Your task to perform on an android device: Do I have any events this weekend? Image 0: 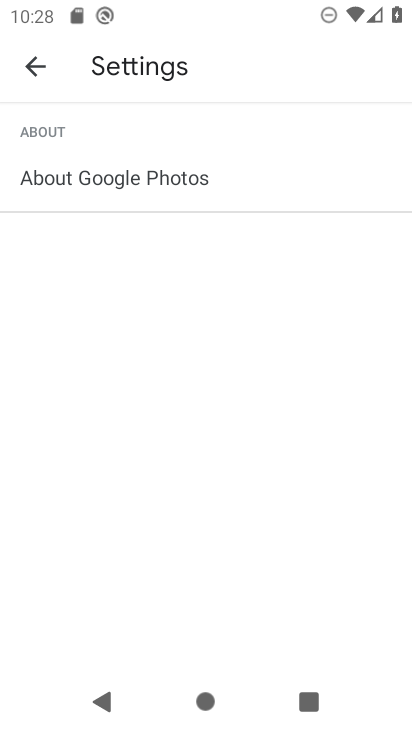
Step 0: press home button
Your task to perform on an android device: Do I have any events this weekend? Image 1: 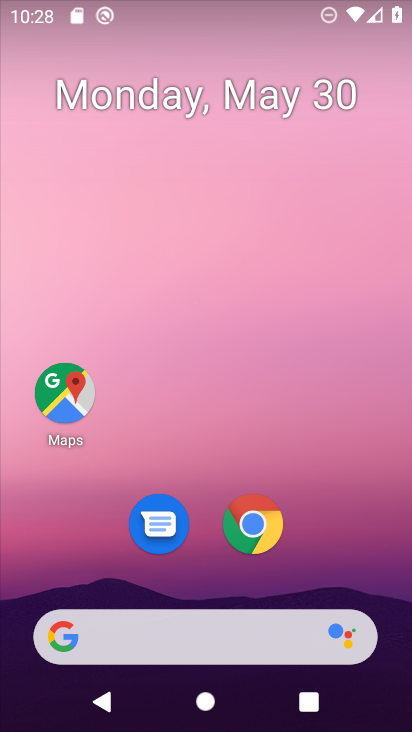
Step 1: drag from (302, 515) to (305, 39)
Your task to perform on an android device: Do I have any events this weekend? Image 2: 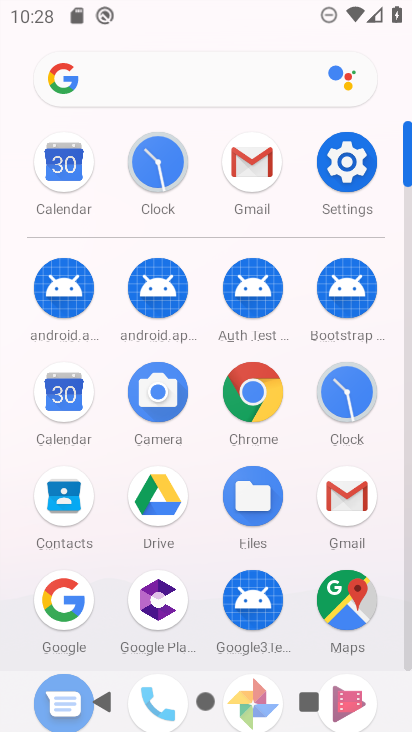
Step 2: click (65, 167)
Your task to perform on an android device: Do I have any events this weekend? Image 3: 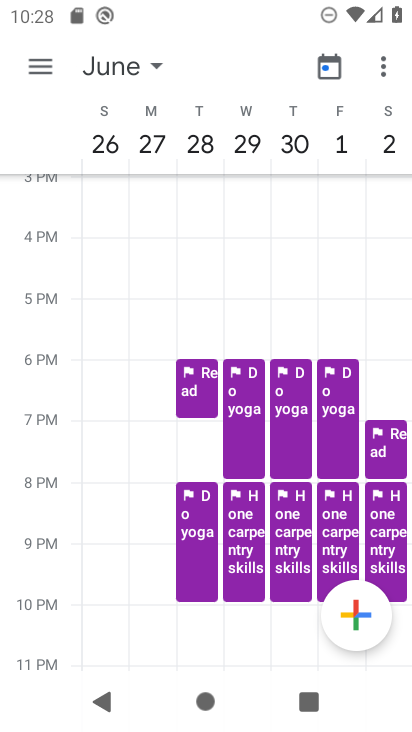
Step 3: drag from (108, 223) to (409, 315)
Your task to perform on an android device: Do I have any events this weekend? Image 4: 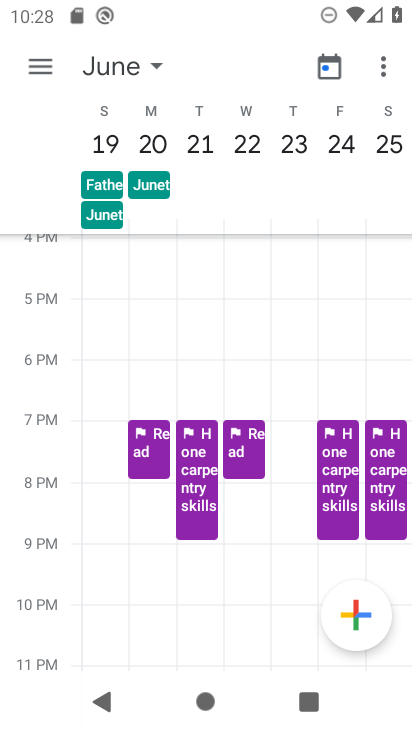
Step 4: drag from (97, 297) to (404, 353)
Your task to perform on an android device: Do I have any events this weekend? Image 5: 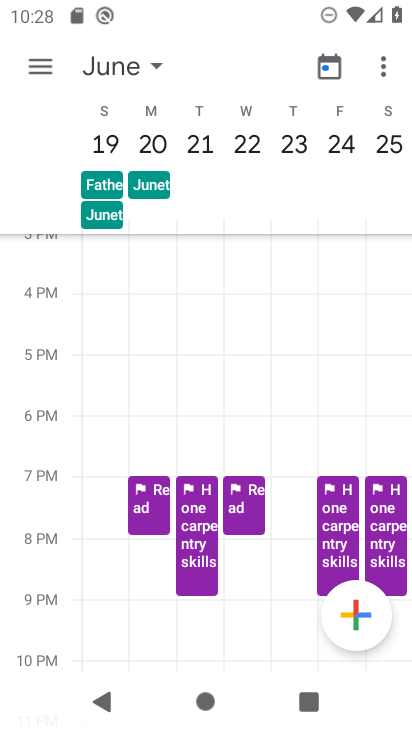
Step 5: drag from (96, 340) to (398, 414)
Your task to perform on an android device: Do I have any events this weekend? Image 6: 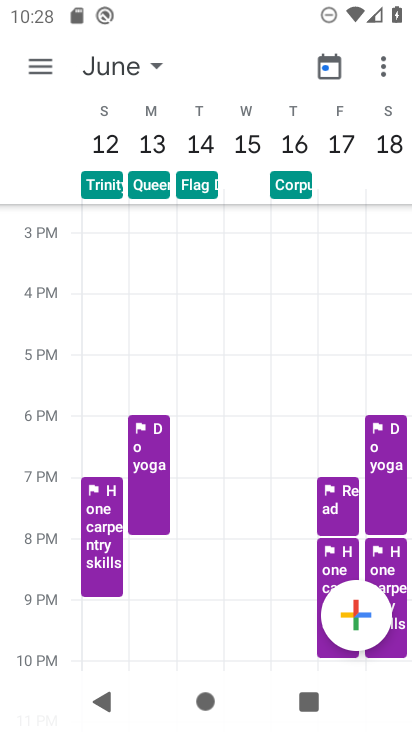
Step 6: drag from (106, 360) to (401, 384)
Your task to perform on an android device: Do I have any events this weekend? Image 7: 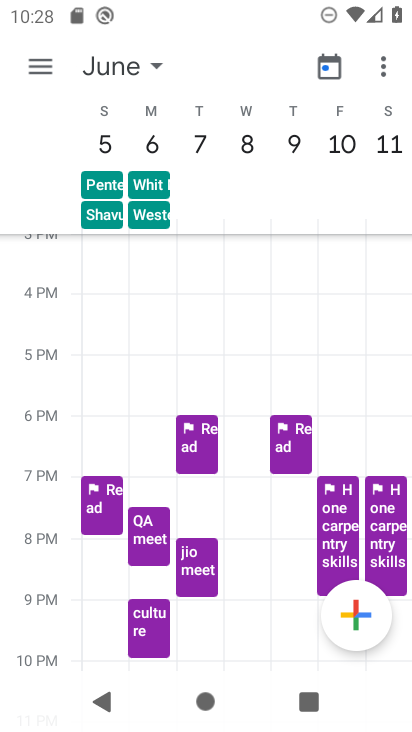
Step 7: drag from (113, 375) to (394, 413)
Your task to perform on an android device: Do I have any events this weekend? Image 8: 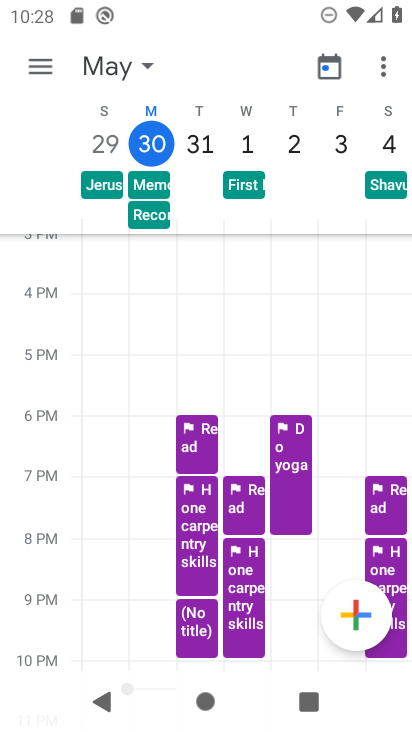
Step 8: click (154, 136)
Your task to perform on an android device: Do I have any events this weekend? Image 9: 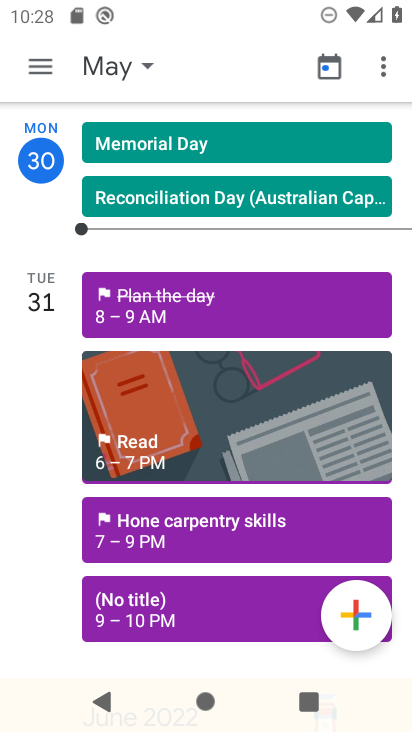
Step 9: task complete